Your task to perform on an android device: Search for the best rated phone case for the iPhone 8. Image 0: 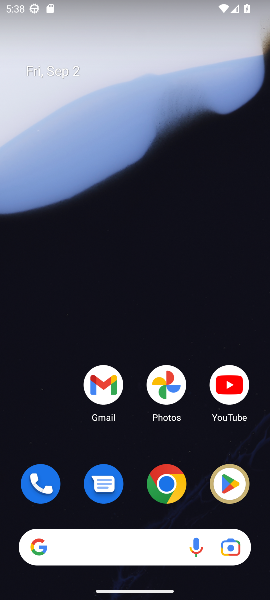
Step 0: click (164, 488)
Your task to perform on an android device: Search for the best rated phone case for the iPhone 8. Image 1: 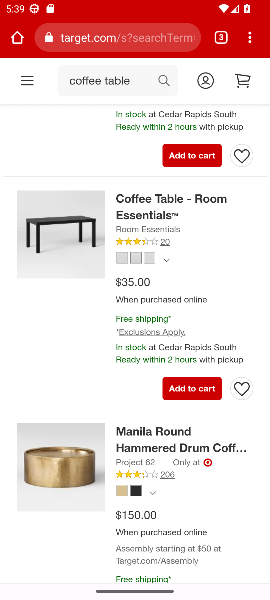
Step 1: click (133, 37)
Your task to perform on an android device: Search for the best rated phone case for the iPhone 8. Image 2: 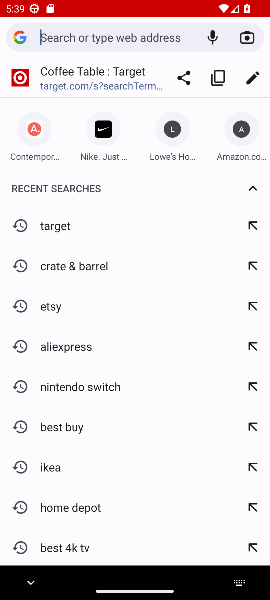
Step 2: click (261, 595)
Your task to perform on an android device: Search for the best rated phone case for the iPhone 8. Image 3: 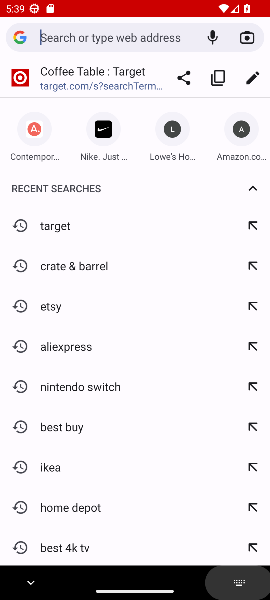
Step 3: type "best rated phone case for the iPhone 8"
Your task to perform on an android device: Search for the best rated phone case for the iPhone 8. Image 4: 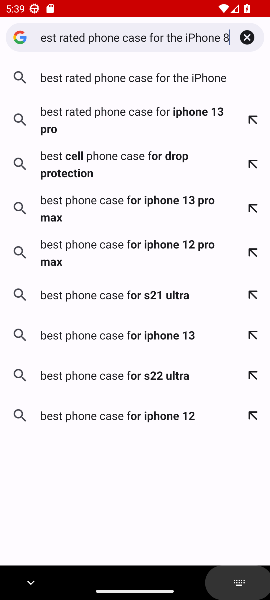
Step 4: press enter
Your task to perform on an android device: Search for the best rated phone case for the iPhone 8. Image 5: 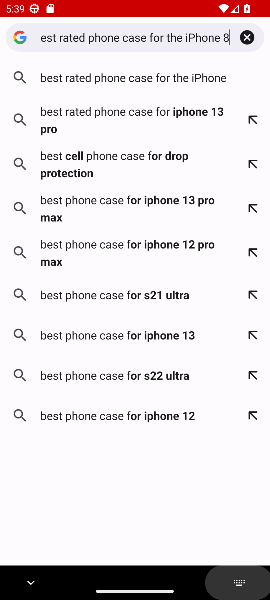
Step 5: task complete